Your task to perform on an android device: turn off smart reply in the gmail app Image 0: 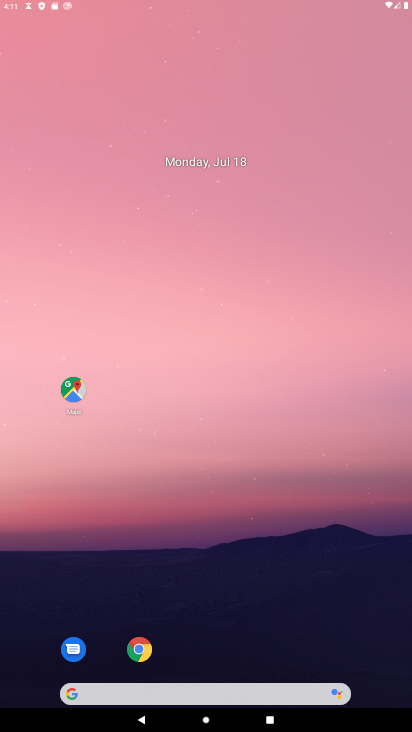
Step 0: press home button
Your task to perform on an android device: turn off smart reply in the gmail app Image 1: 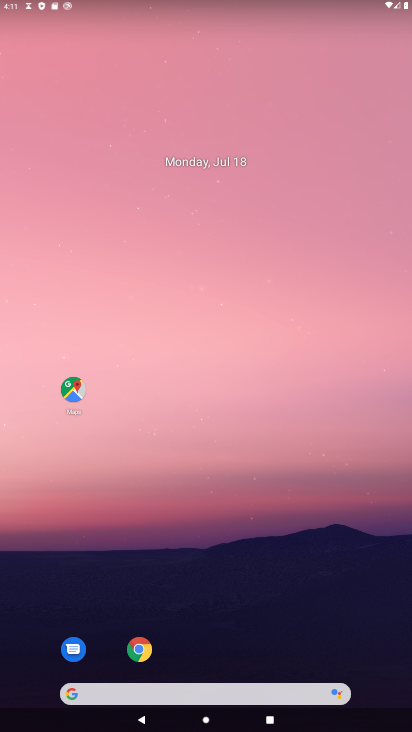
Step 1: drag from (217, 610) to (234, 188)
Your task to perform on an android device: turn off smart reply in the gmail app Image 2: 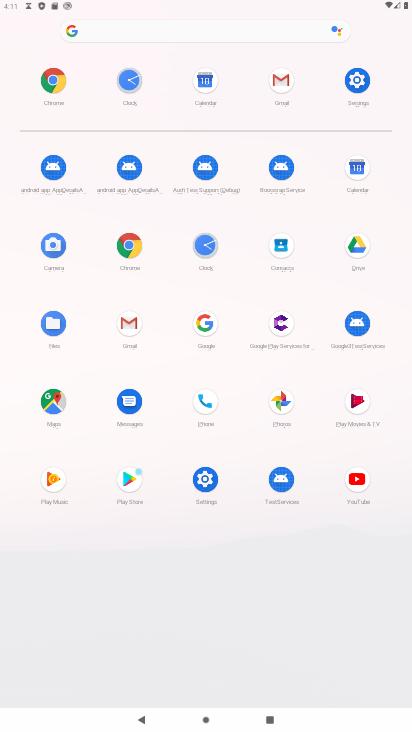
Step 2: click (270, 84)
Your task to perform on an android device: turn off smart reply in the gmail app Image 3: 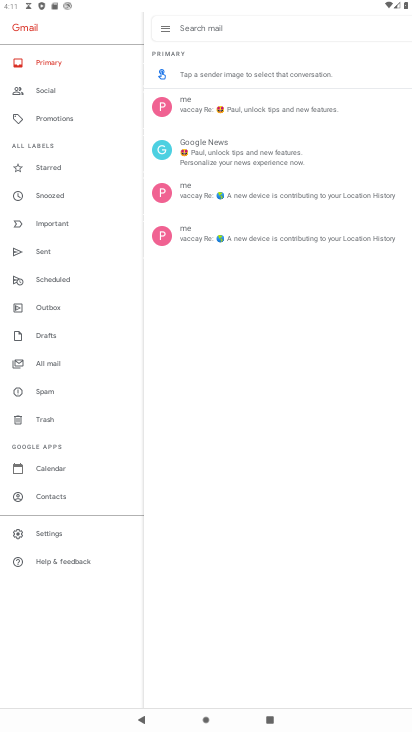
Step 3: click (60, 535)
Your task to perform on an android device: turn off smart reply in the gmail app Image 4: 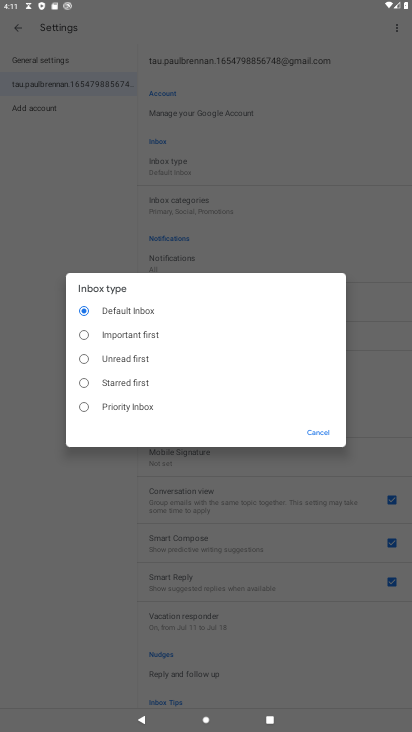
Step 4: click (315, 422)
Your task to perform on an android device: turn off smart reply in the gmail app Image 5: 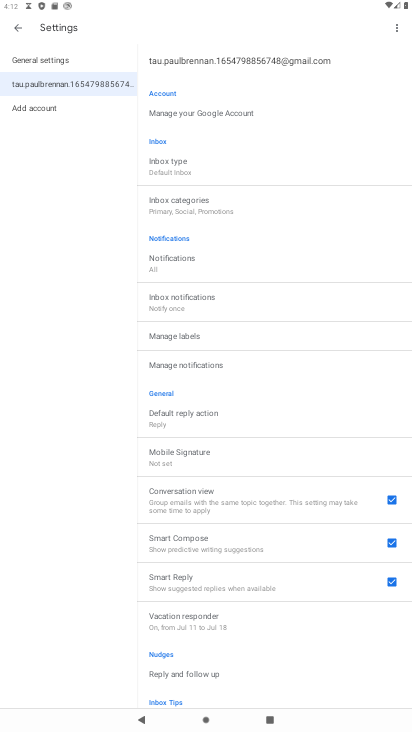
Step 5: click (389, 578)
Your task to perform on an android device: turn off smart reply in the gmail app Image 6: 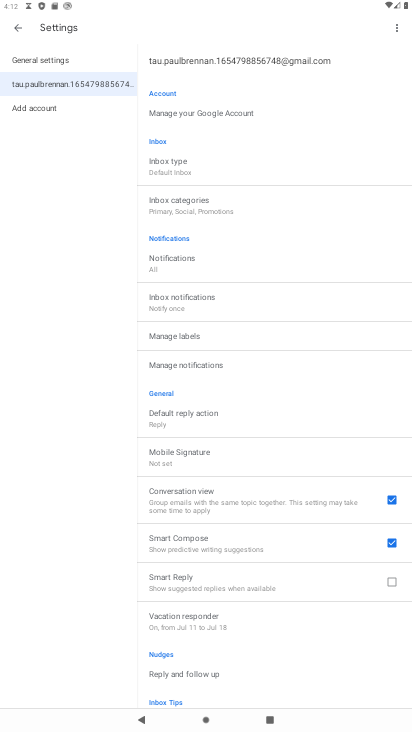
Step 6: task complete